Your task to perform on an android device: What is the recent news? Image 0: 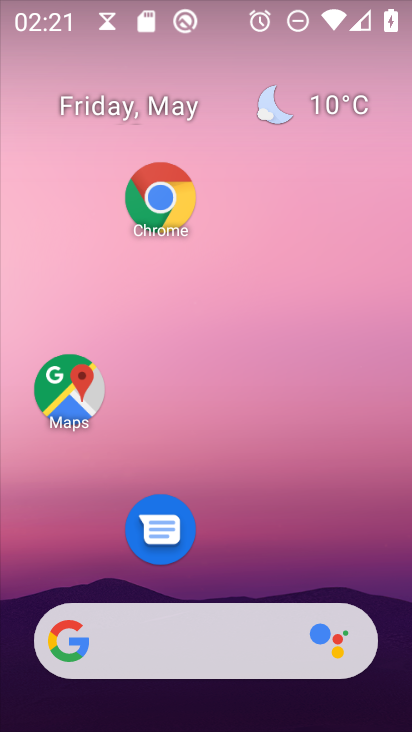
Step 0: drag from (249, 505) to (306, 222)
Your task to perform on an android device: What is the recent news? Image 1: 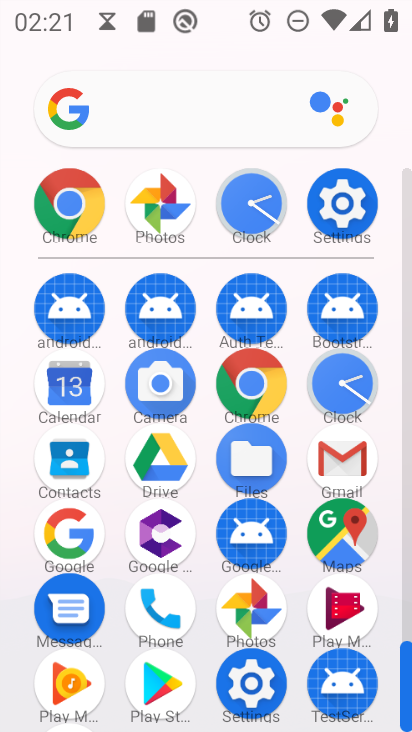
Step 1: click (51, 192)
Your task to perform on an android device: What is the recent news? Image 2: 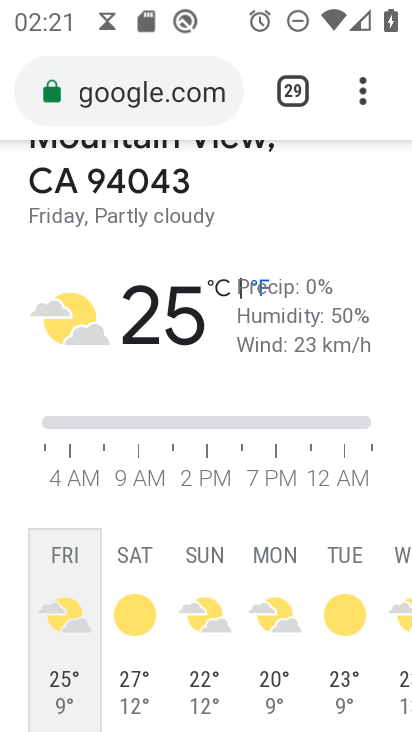
Step 2: drag from (306, 273) to (273, 700)
Your task to perform on an android device: What is the recent news? Image 3: 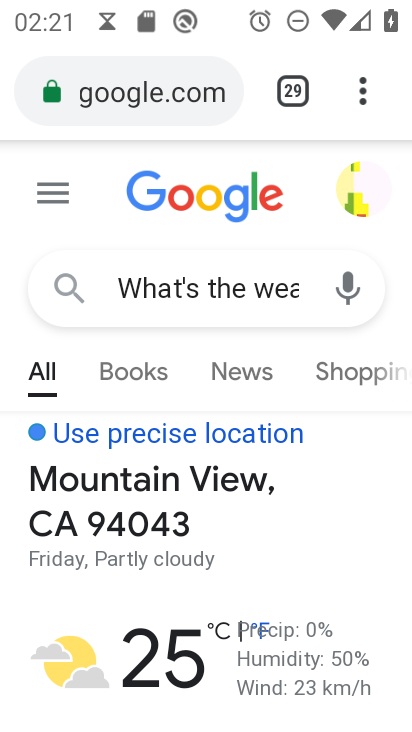
Step 3: click (338, 100)
Your task to perform on an android device: What is the recent news? Image 4: 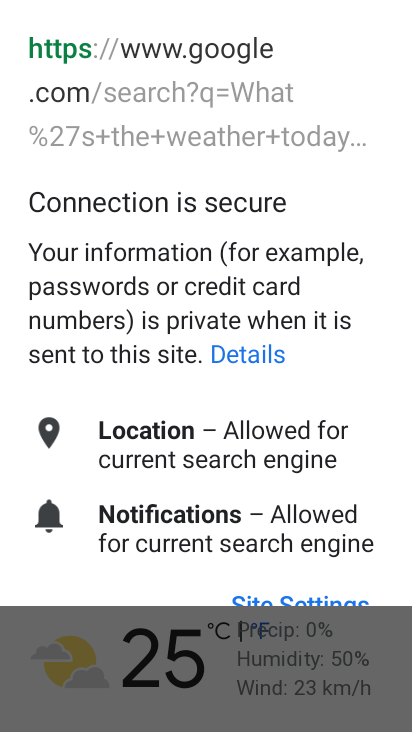
Step 4: press back button
Your task to perform on an android device: What is the recent news? Image 5: 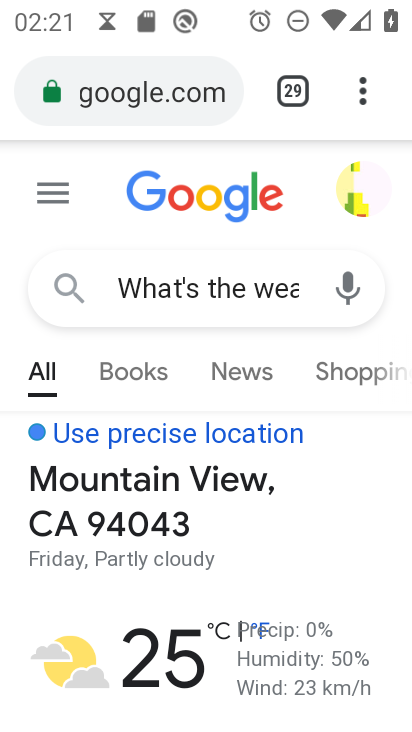
Step 5: click (292, 85)
Your task to perform on an android device: What is the recent news? Image 6: 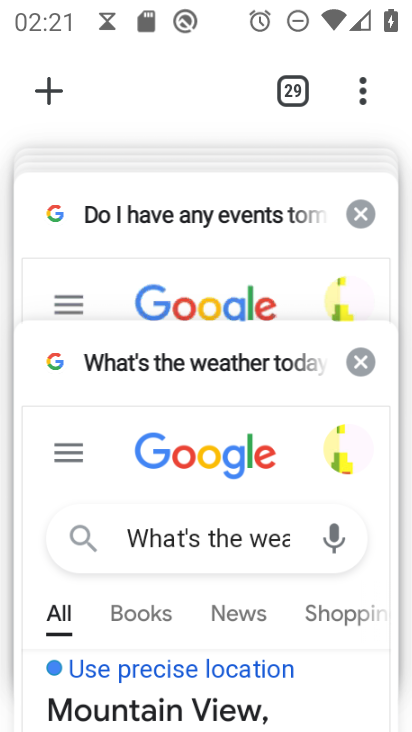
Step 6: drag from (240, 223) to (175, 703)
Your task to perform on an android device: What is the recent news? Image 7: 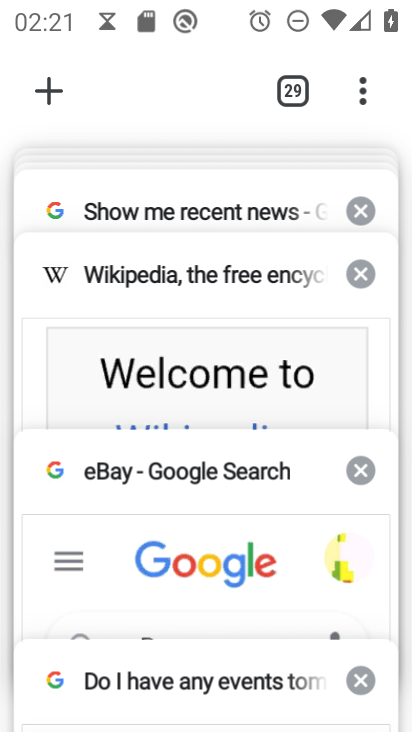
Step 7: click (176, 637)
Your task to perform on an android device: What is the recent news? Image 8: 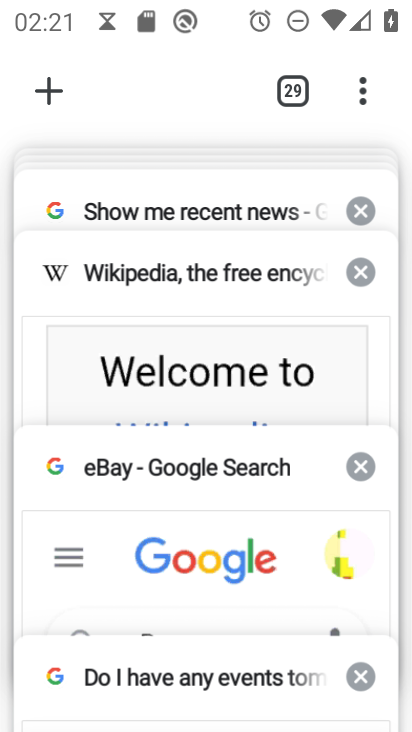
Step 8: drag from (202, 190) to (203, 656)
Your task to perform on an android device: What is the recent news? Image 9: 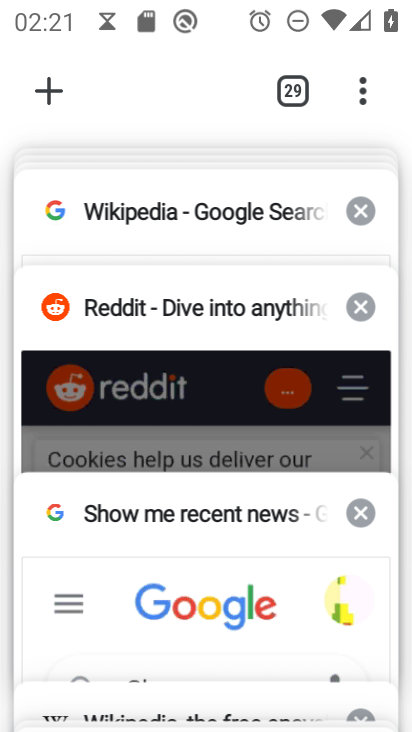
Step 9: click (199, 527)
Your task to perform on an android device: What is the recent news? Image 10: 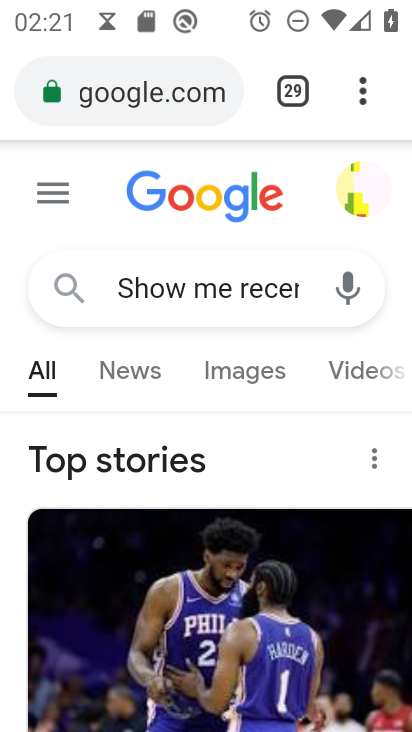
Step 10: click (349, 89)
Your task to perform on an android device: What is the recent news? Image 11: 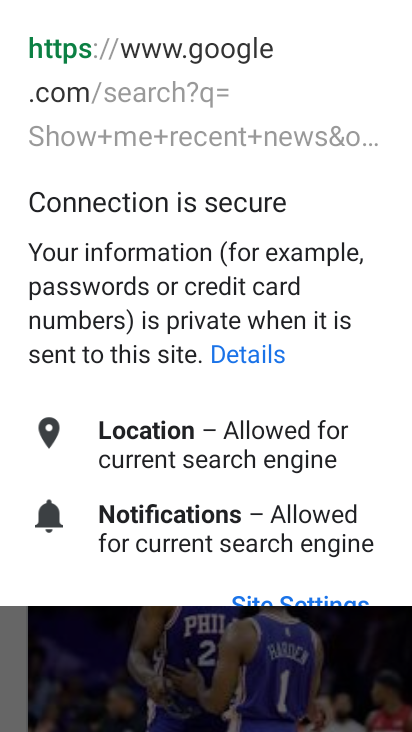
Step 11: press back button
Your task to perform on an android device: What is the recent news? Image 12: 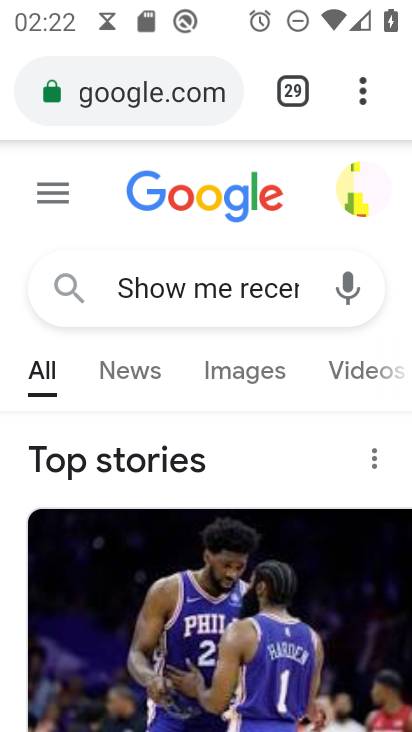
Step 12: click (355, 107)
Your task to perform on an android device: What is the recent news? Image 13: 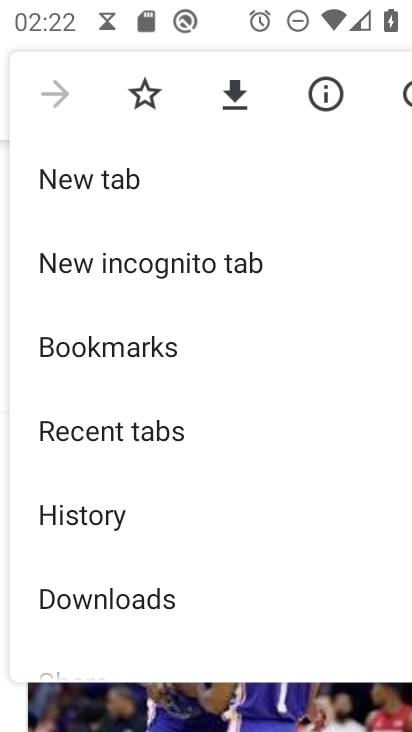
Step 13: click (91, 175)
Your task to perform on an android device: What is the recent news? Image 14: 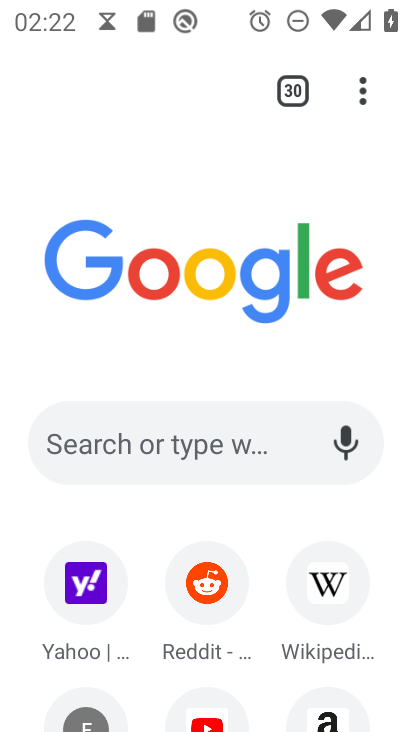
Step 14: click (180, 440)
Your task to perform on an android device: What is the recent news? Image 15: 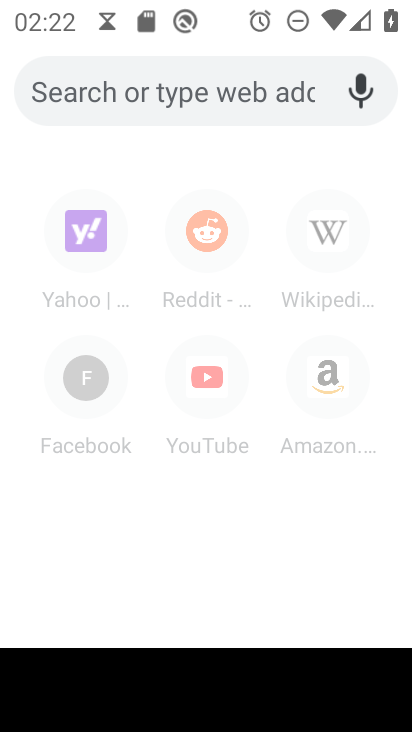
Step 15: type "What is the recent news?"
Your task to perform on an android device: What is the recent news? Image 16: 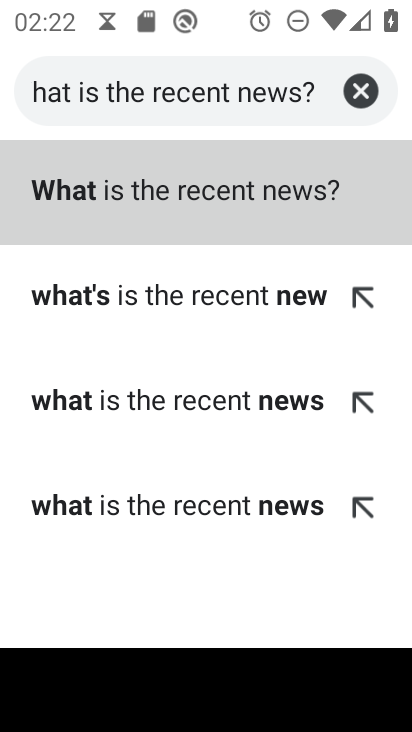
Step 16: click (191, 198)
Your task to perform on an android device: What is the recent news? Image 17: 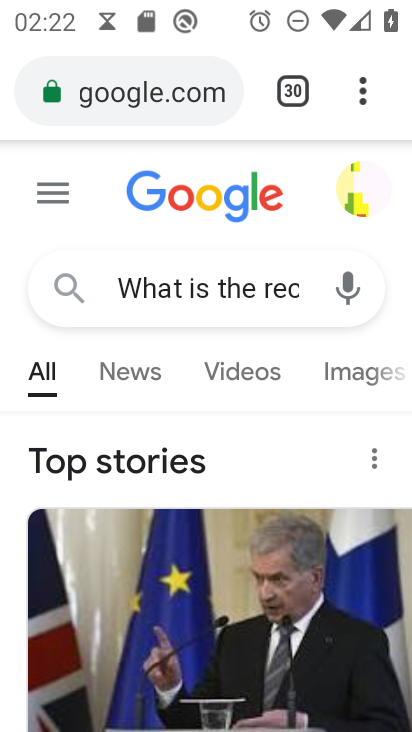
Step 17: task complete